Your task to perform on an android device: Search for sushi restaurants on Maps Image 0: 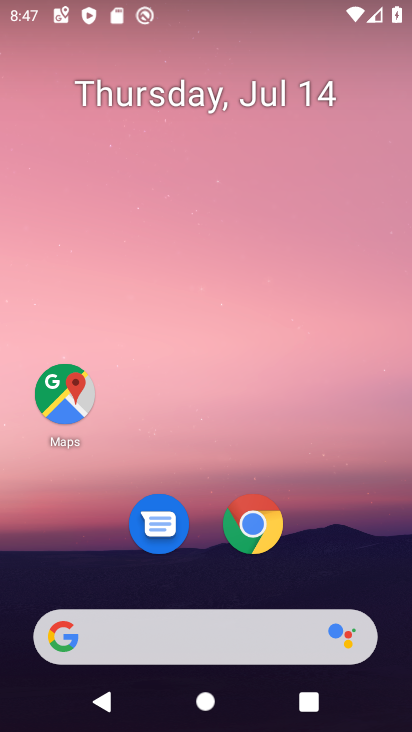
Step 0: click (59, 385)
Your task to perform on an android device: Search for sushi restaurants on Maps Image 1: 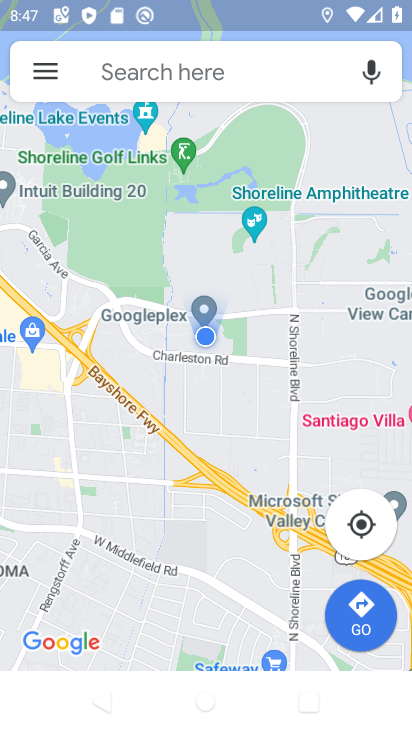
Step 1: click (248, 77)
Your task to perform on an android device: Search for sushi restaurants on Maps Image 2: 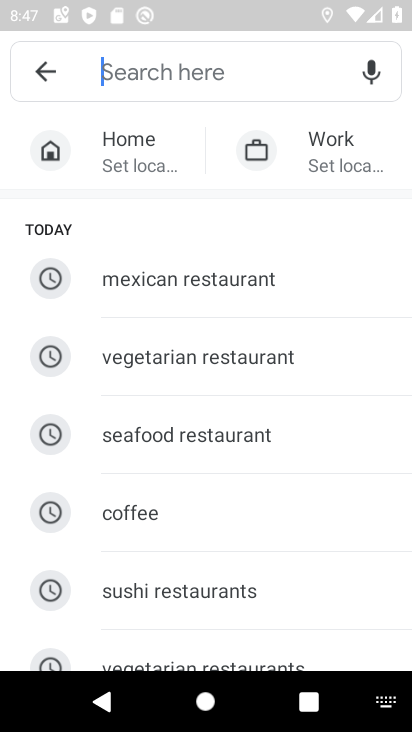
Step 2: click (211, 598)
Your task to perform on an android device: Search for sushi restaurants on Maps Image 3: 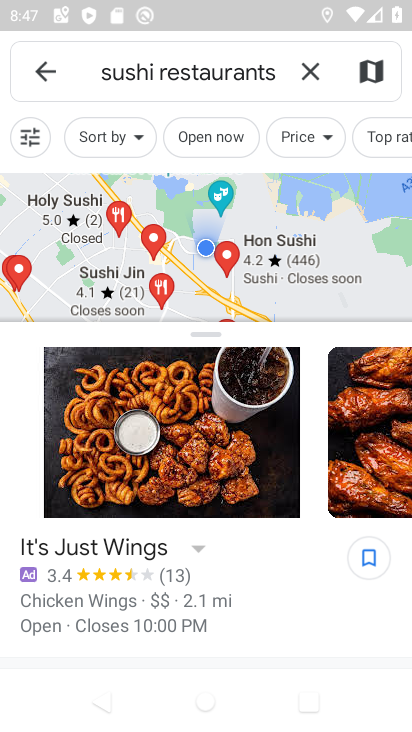
Step 3: task complete